Your task to perform on an android device: star an email in the gmail app Image 0: 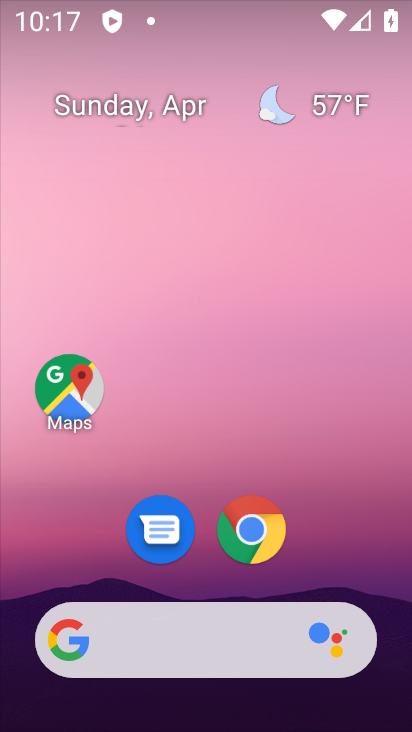
Step 0: drag from (351, 556) to (212, 25)
Your task to perform on an android device: star an email in the gmail app Image 1: 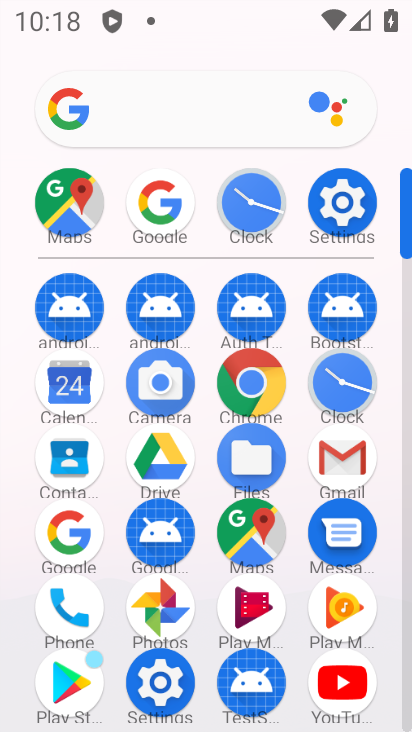
Step 1: click (339, 451)
Your task to perform on an android device: star an email in the gmail app Image 2: 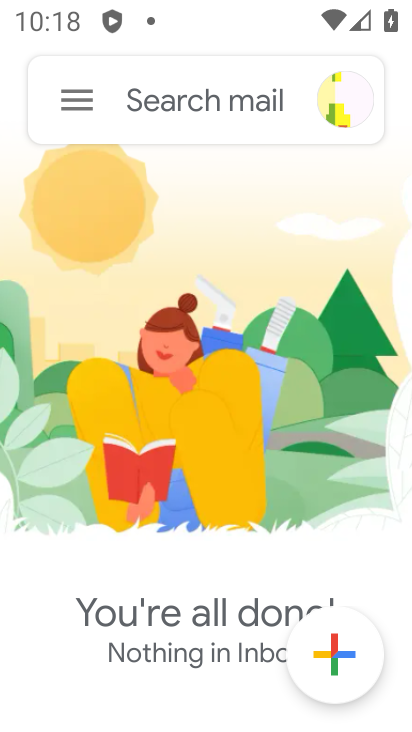
Step 2: click (74, 88)
Your task to perform on an android device: star an email in the gmail app Image 3: 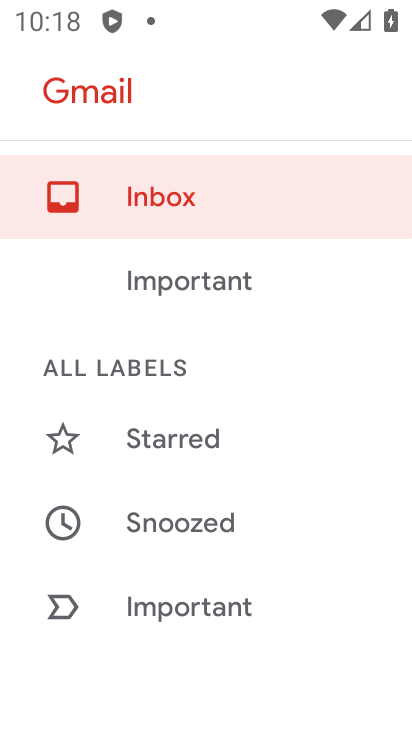
Step 3: drag from (261, 607) to (203, 172)
Your task to perform on an android device: star an email in the gmail app Image 4: 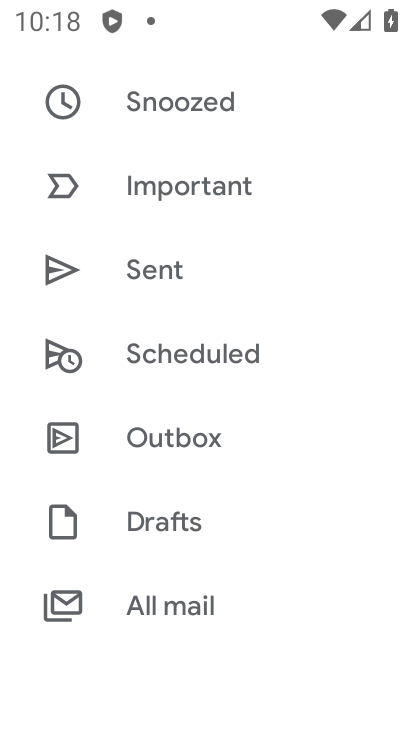
Step 4: click (179, 604)
Your task to perform on an android device: star an email in the gmail app Image 5: 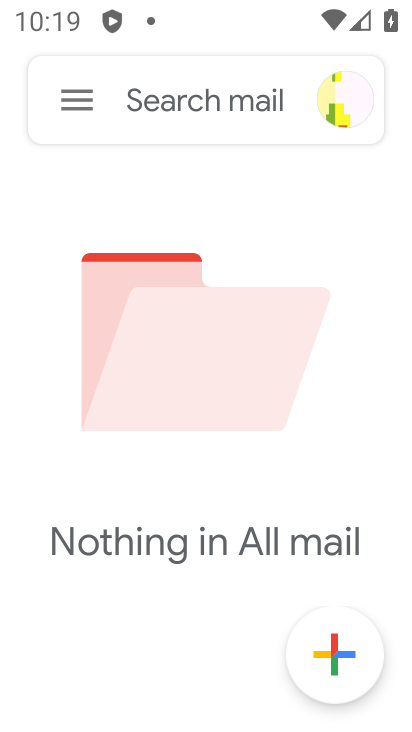
Step 5: task complete